Your task to perform on an android device: Open Google Chrome and open the bookmarks view Image 0: 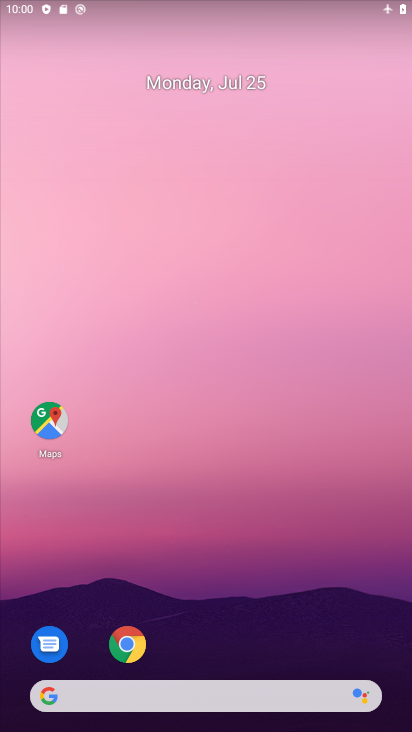
Step 0: drag from (285, 568) to (301, 102)
Your task to perform on an android device: Open Google Chrome and open the bookmarks view Image 1: 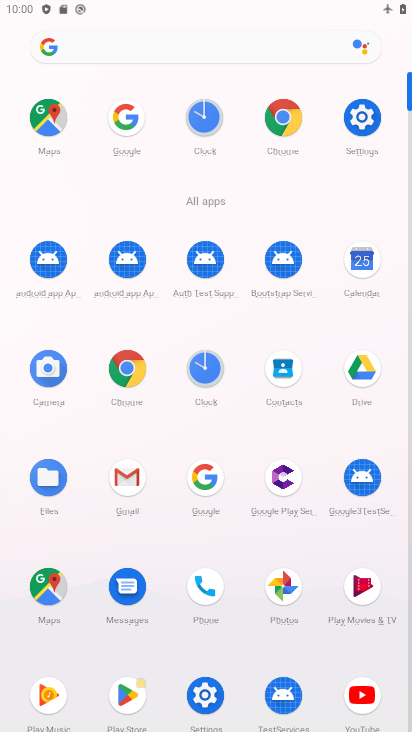
Step 1: click (132, 364)
Your task to perform on an android device: Open Google Chrome and open the bookmarks view Image 2: 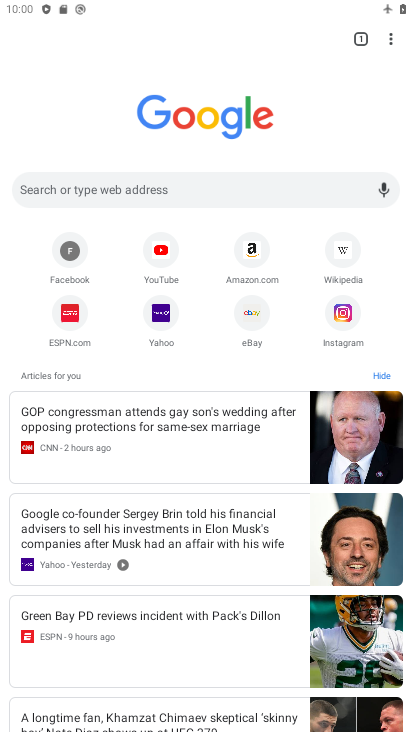
Step 2: drag from (382, 2) to (318, 411)
Your task to perform on an android device: Open Google Chrome and open the bookmarks view Image 3: 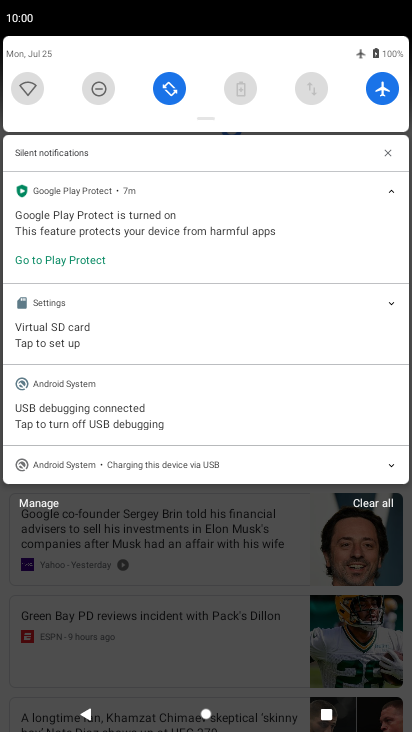
Step 3: click (378, 90)
Your task to perform on an android device: Open Google Chrome and open the bookmarks view Image 4: 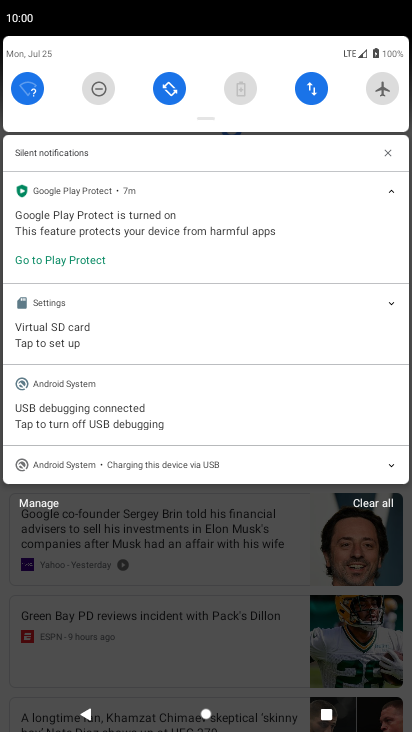
Step 4: click (377, 500)
Your task to perform on an android device: Open Google Chrome and open the bookmarks view Image 5: 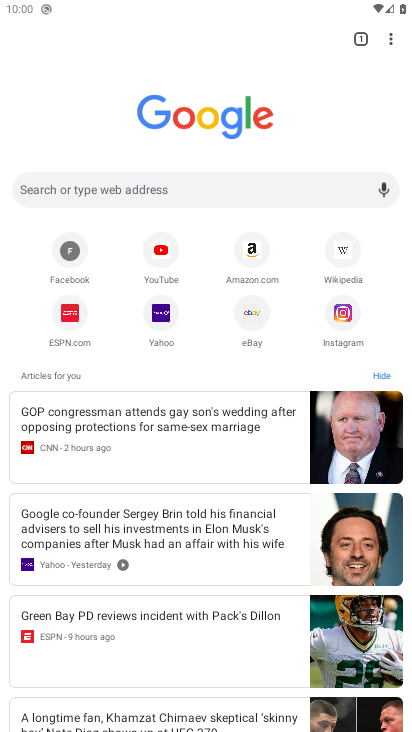
Step 5: task complete